Your task to perform on an android device: Go to Google Image 0: 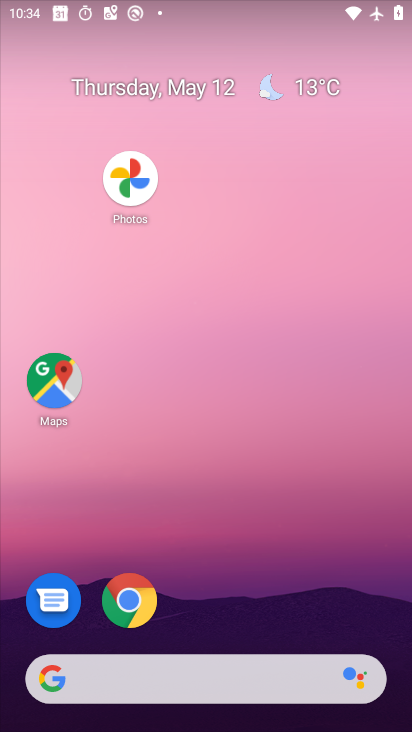
Step 0: drag from (342, 597) to (129, 142)
Your task to perform on an android device: Go to Google Image 1: 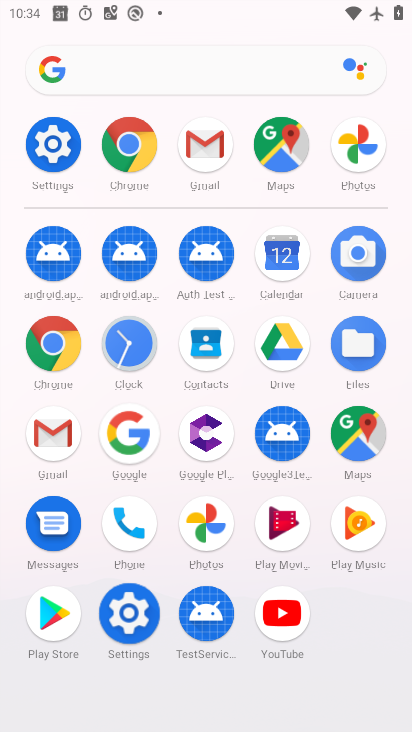
Step 1: click (118, 438)
Your task to perform on an android device: Go to Google Image 2: 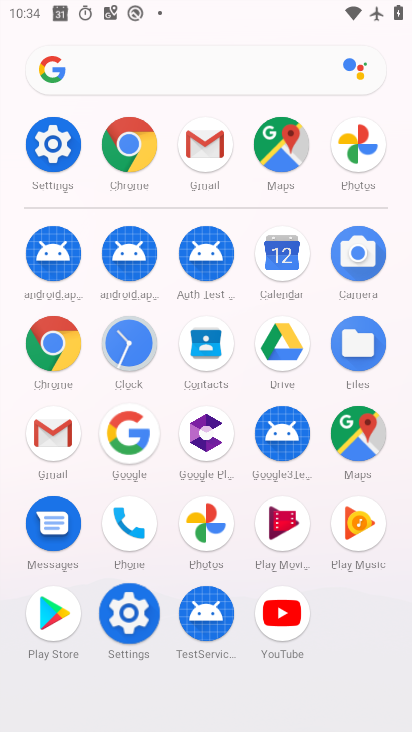
Step 2: click (118, 438)
Your task to perform on an android device: Go to Google Image 3: 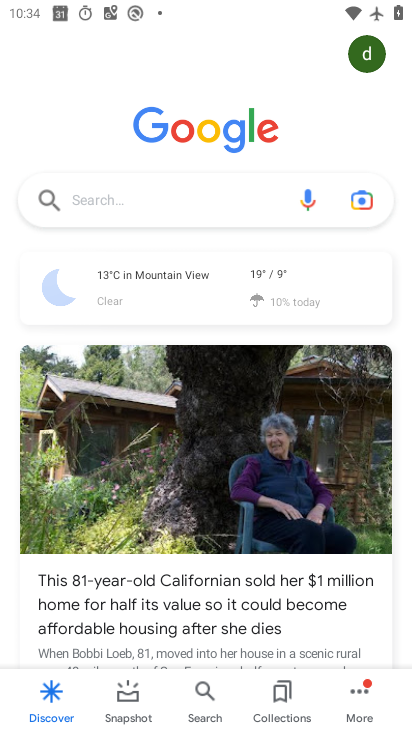
Step 3: task complete